Your task to perform on an android device: open app "Cash App" Image 0: 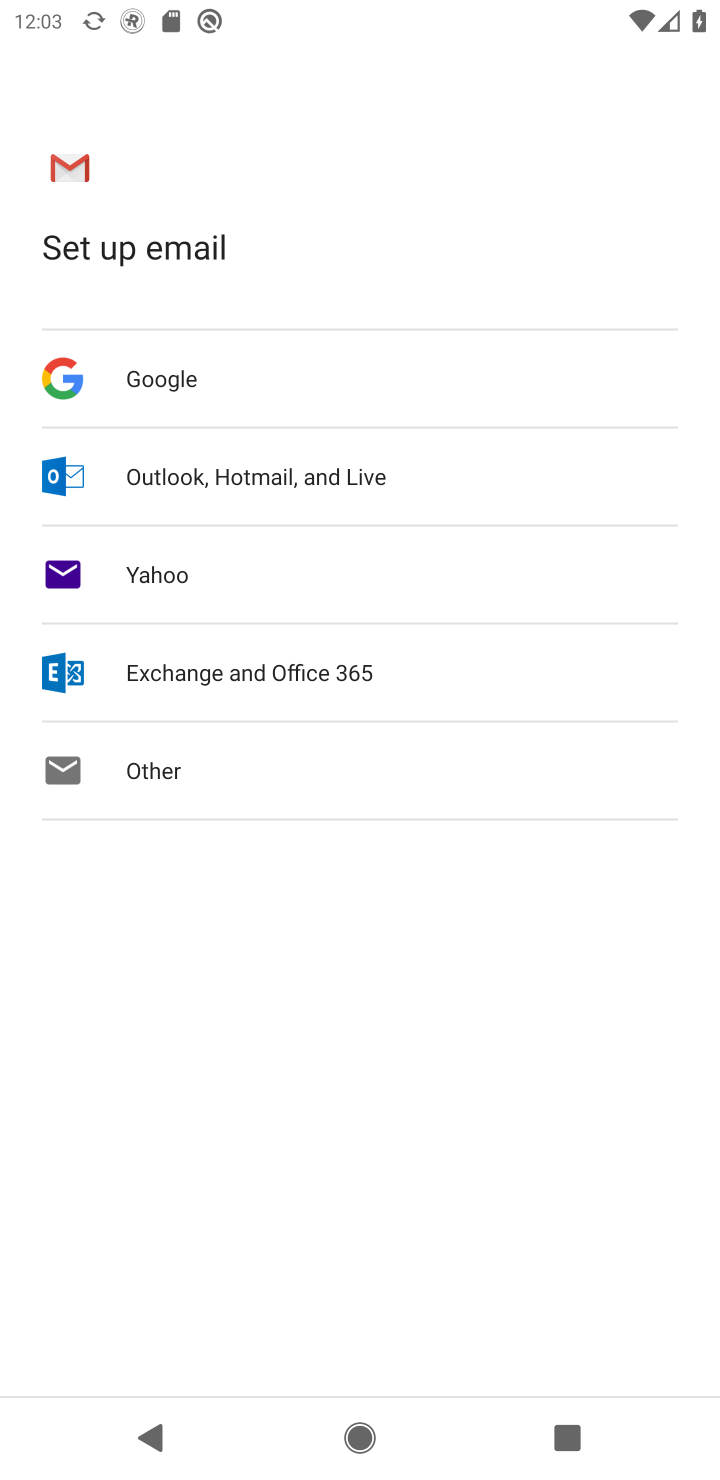
Step 0: press home button
Your task to perform on an android device: open app "Cash App" Image 1: 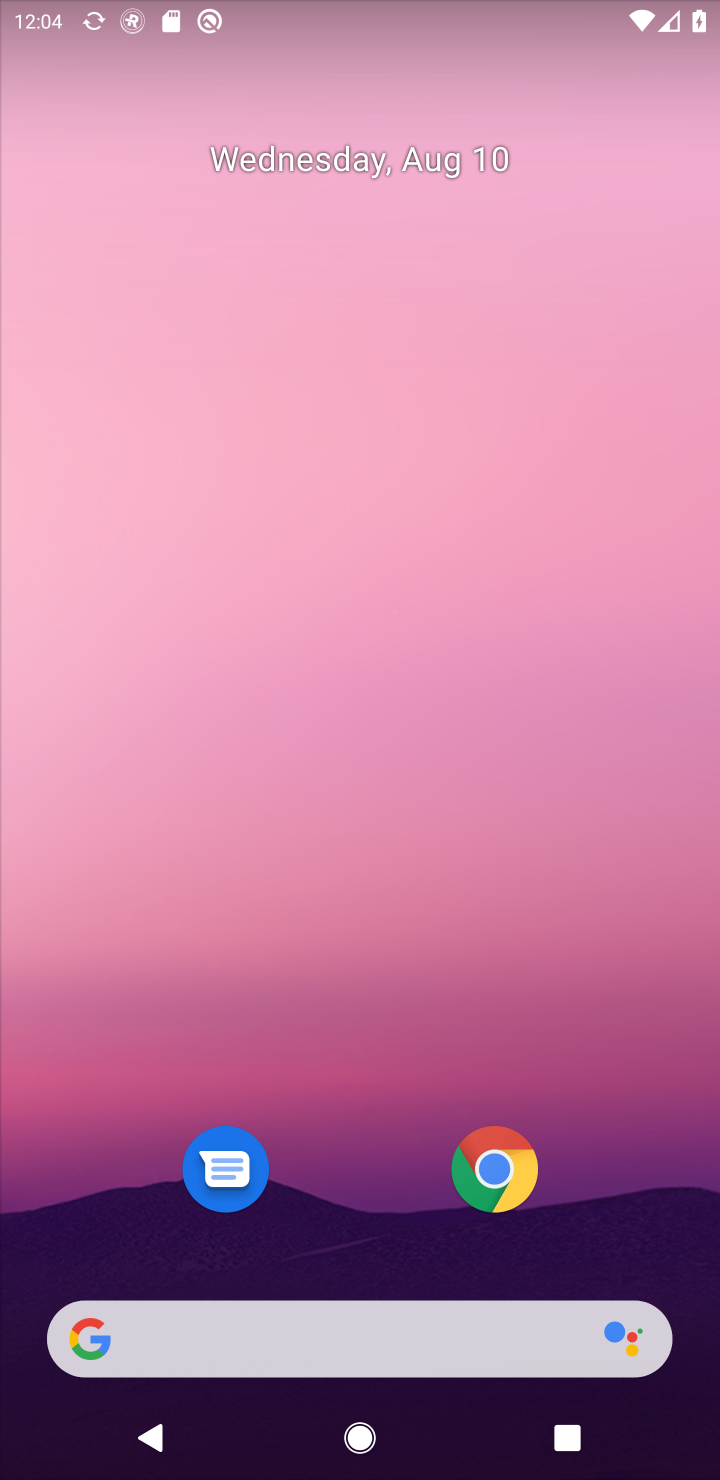
Step 1: drag from (585, 1139) to (563, 101)
Your task to perform on an android device: open app "Cash App" Image 2: 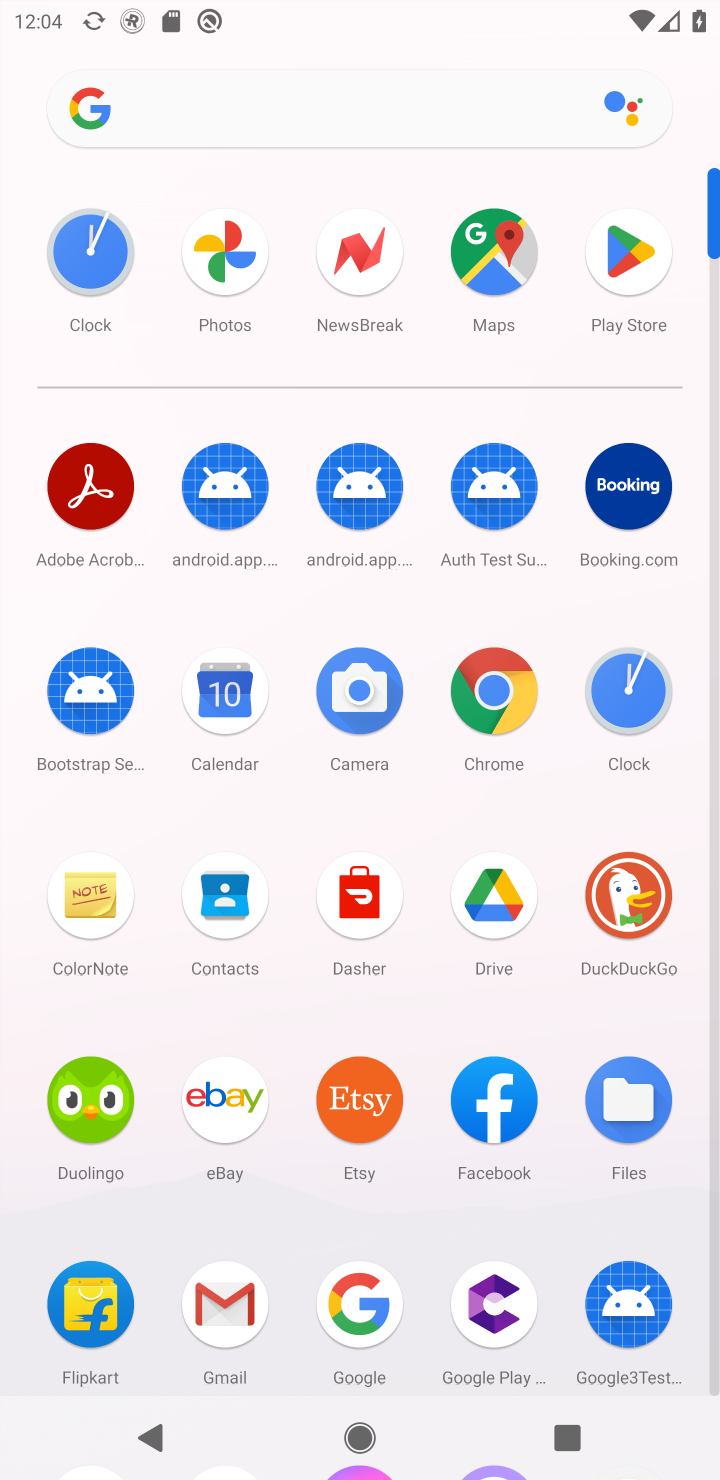
Step 2: click (621, 244)
Your task to perform on an android device: open app "Cash App" Image 3: 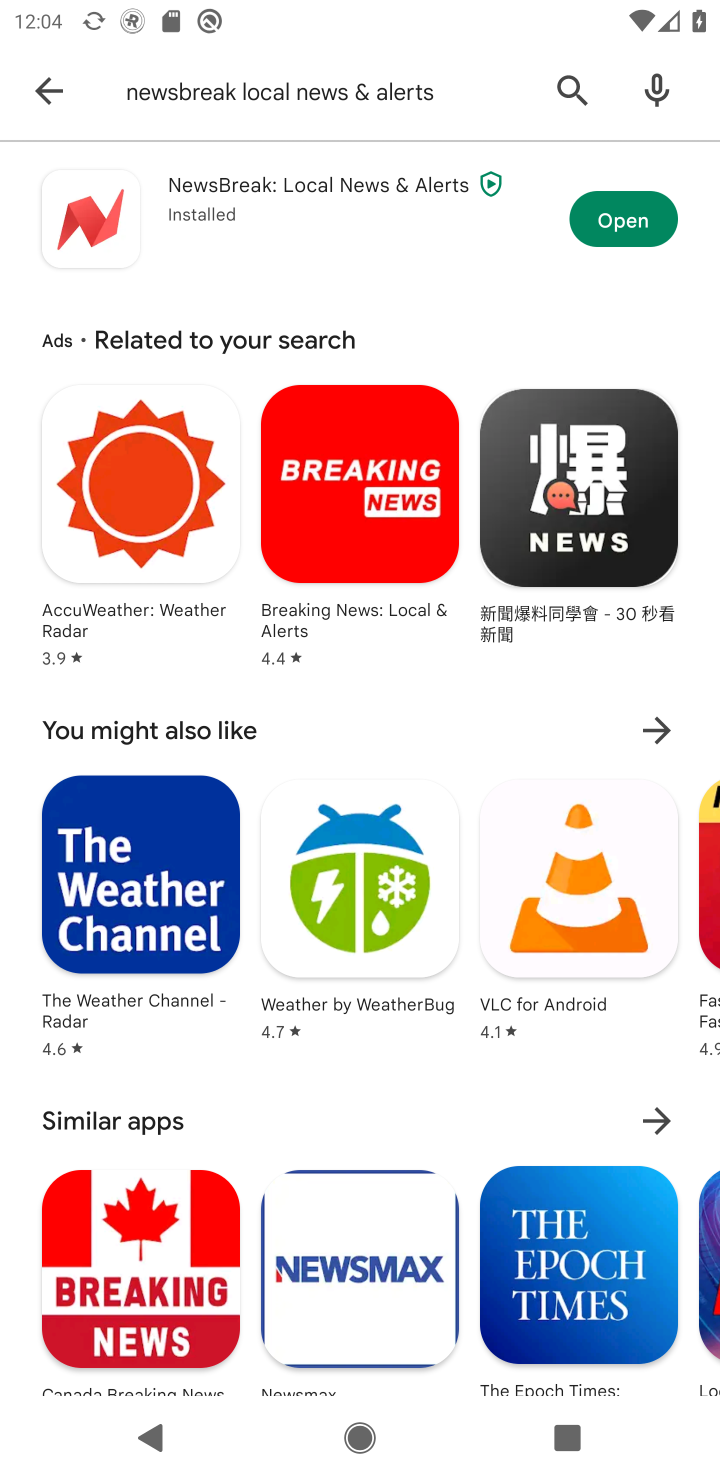
Step 3: click (563, 90)
Your task to perform on an android device: open app "Cash App" Image 4: 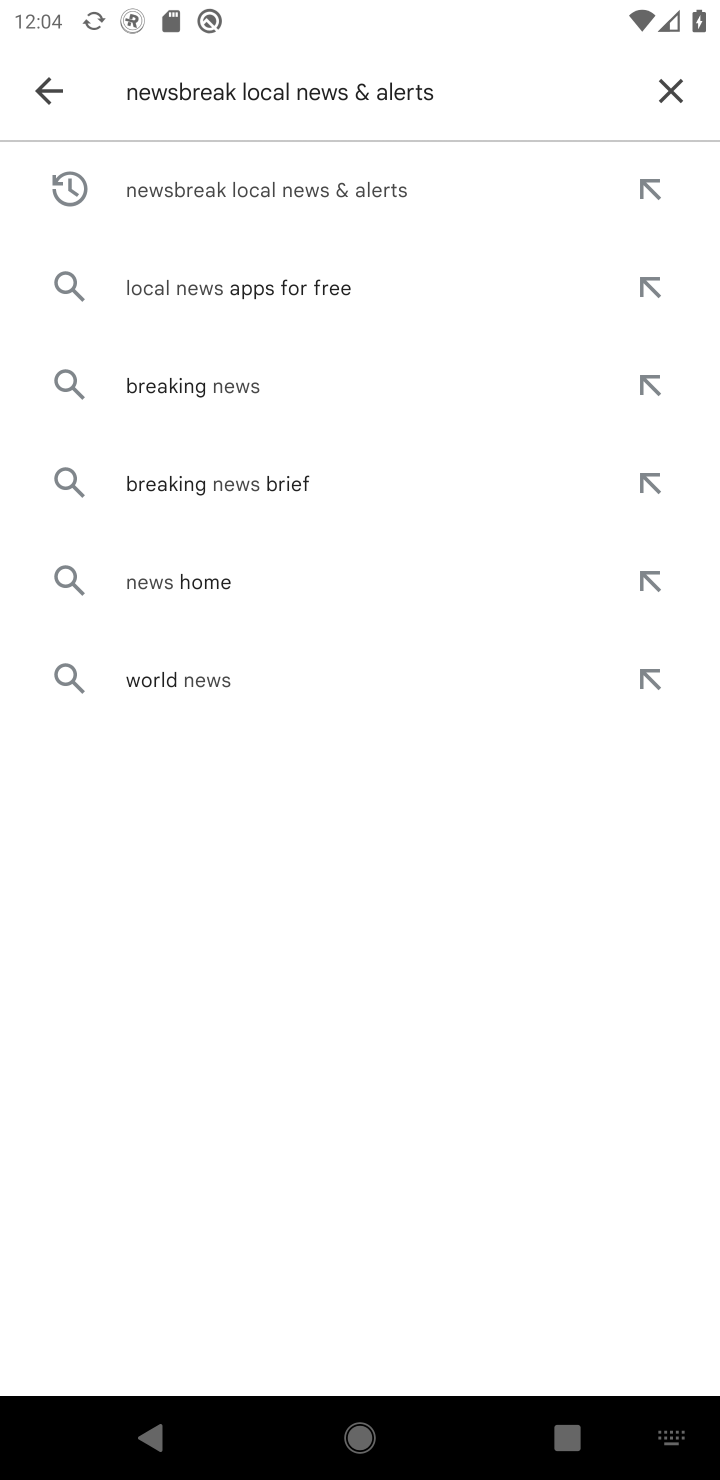
Step 4: click (677, 80)
Your task to perform on an android device: open app "Cash App" Image 5: 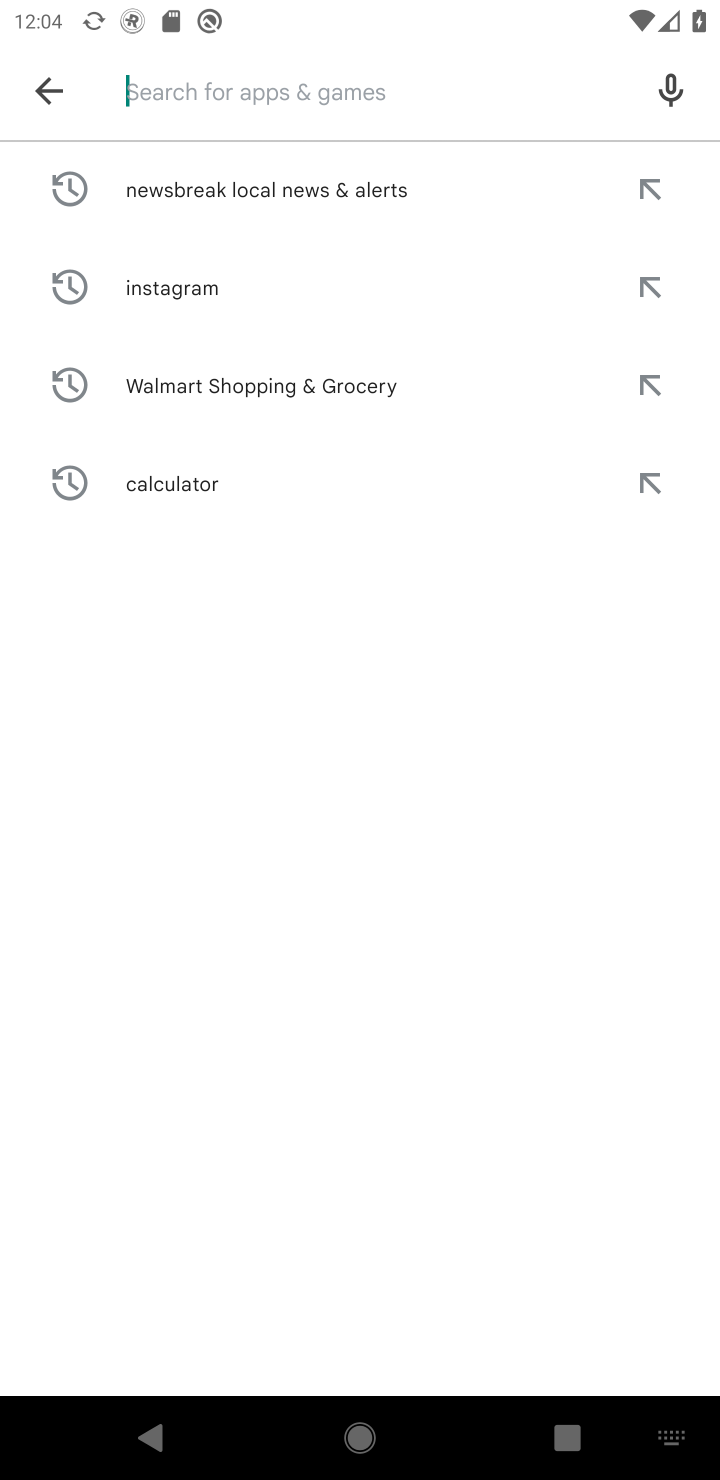
Step 5: press enter
Your task to perform on an android device: open app "Cash App" Image 6: 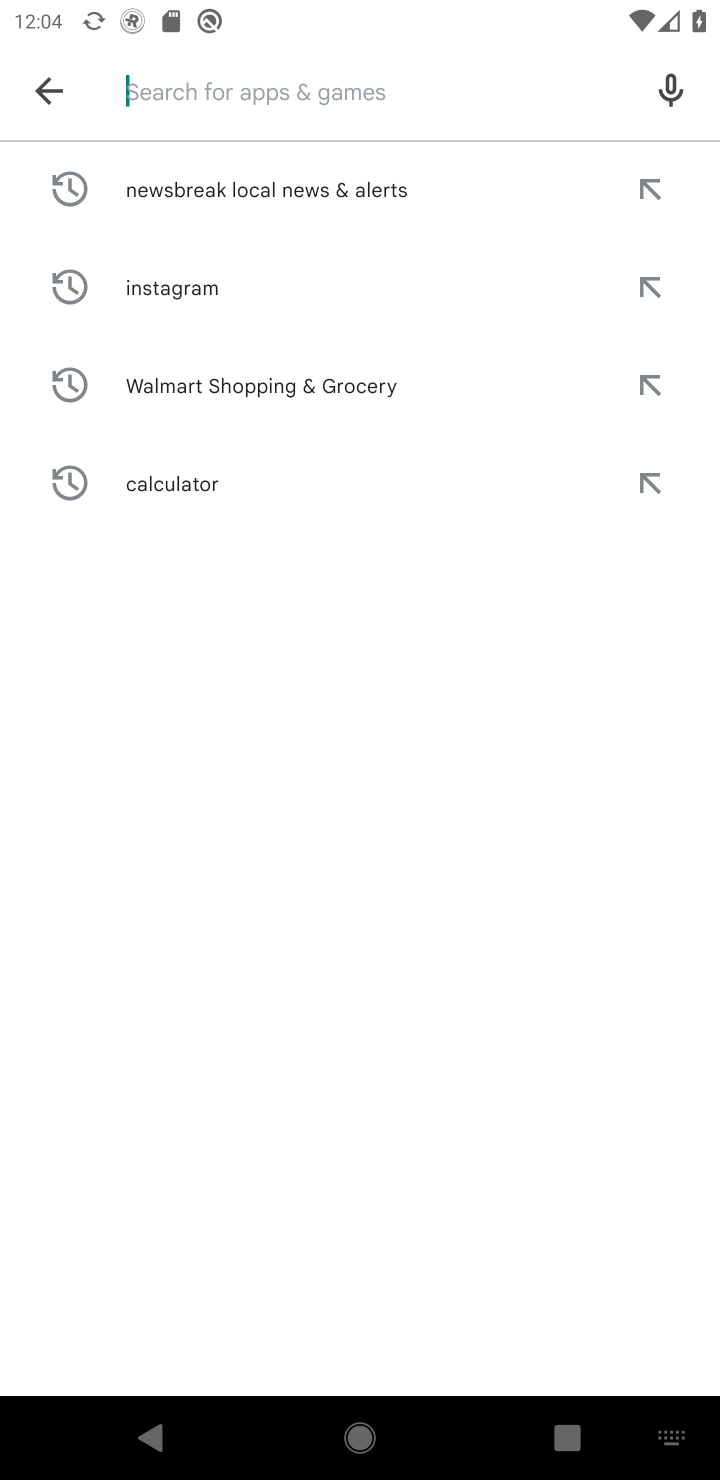
Step 6: type "cash app"
Your task to perform on an android device: open app "Cash App" Image 7: 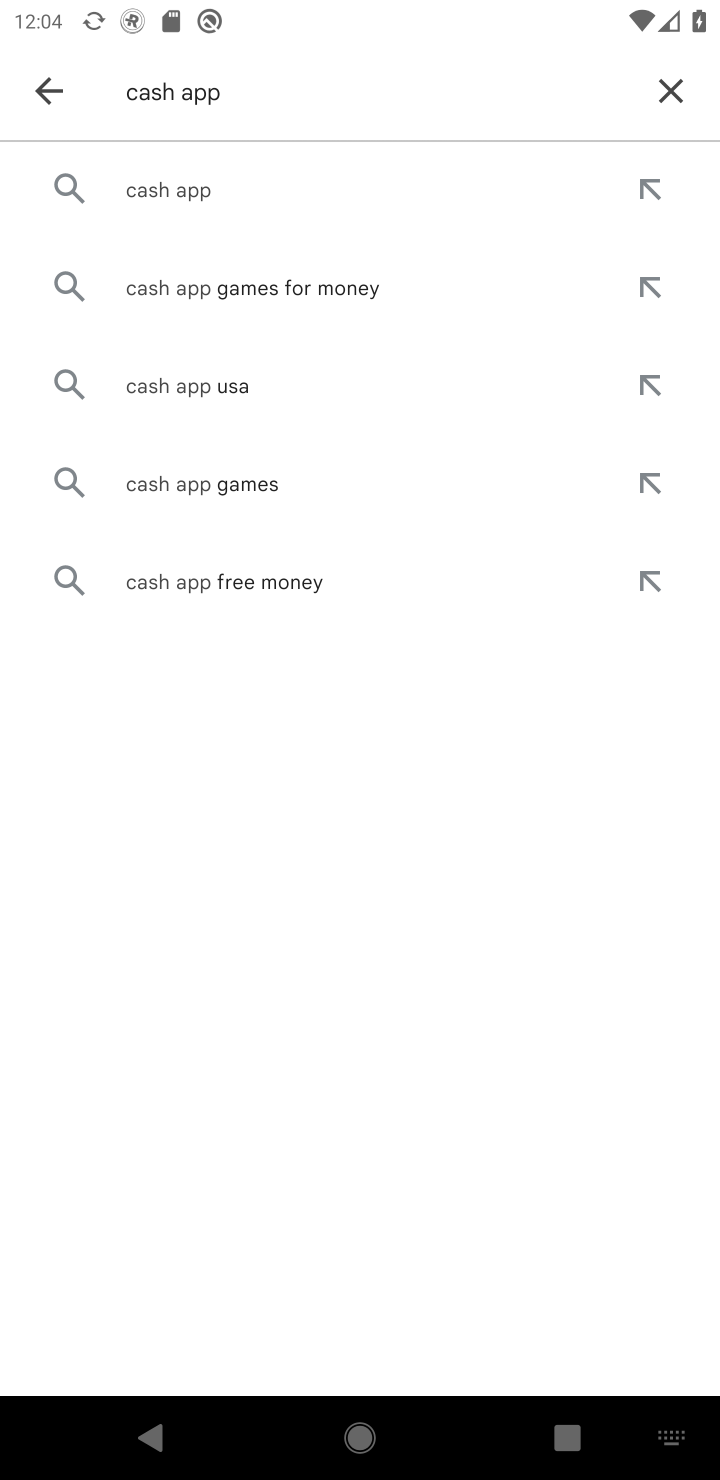
Step 7: click (188, 194)
Your task to perform on an android device: open app "Cash App" Image 8: 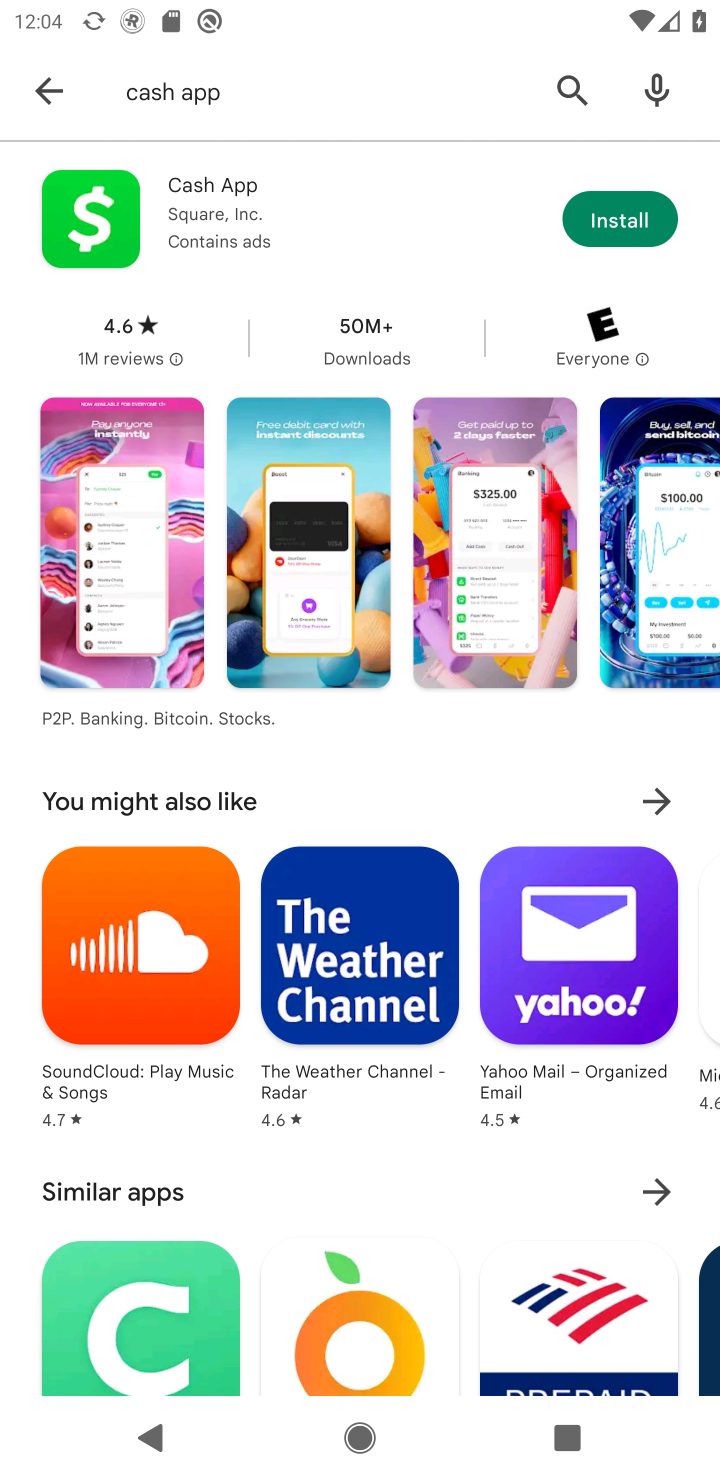
Step 8: task complete